Your task to perform on an android device: add a contact in the contacts app Image 0: 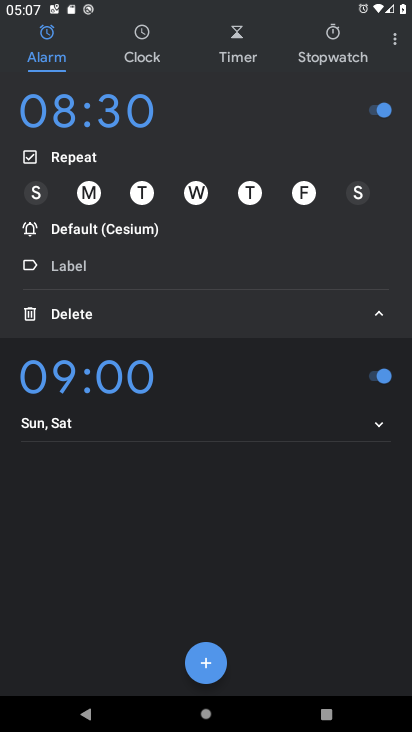
Step 0: press home button
Your task to perform on an android device: add a contact in the contacts app Image 1: 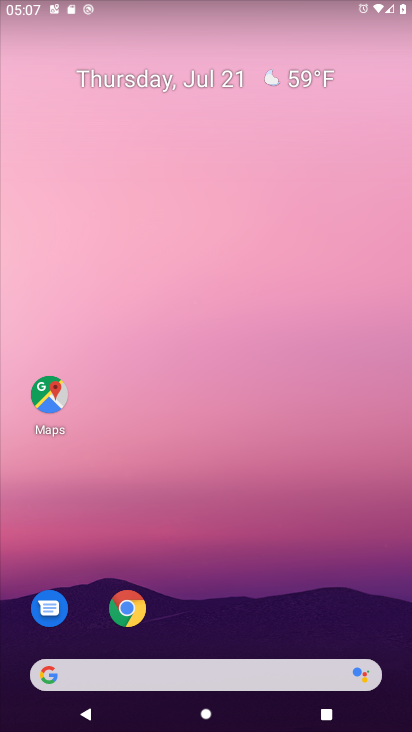
Step 1: drag from (194, 649) to (233, 0)
Your task to perform on an android device: add a contact in the contacts app Image 2: 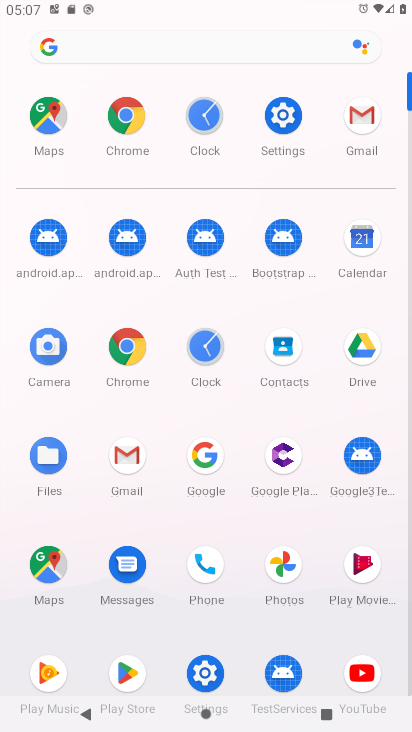
Step 2: click (288, 350)
Your task to perform on an android device: add a contact in the contacts app Image 3: 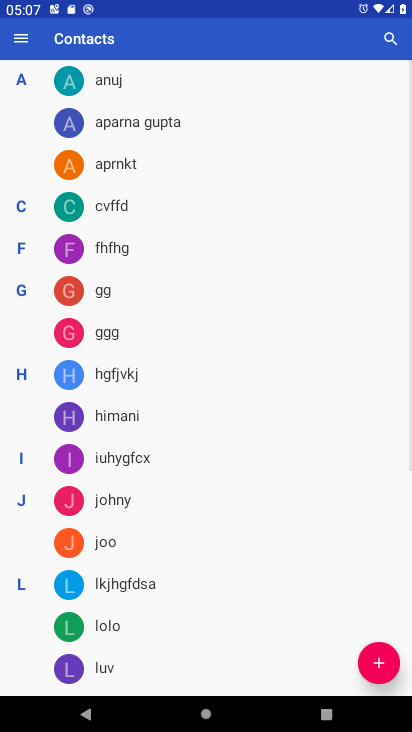
Step 3: click (384, 660)
Your task to perform on an android device: add a contact in the contacts app Image 4: 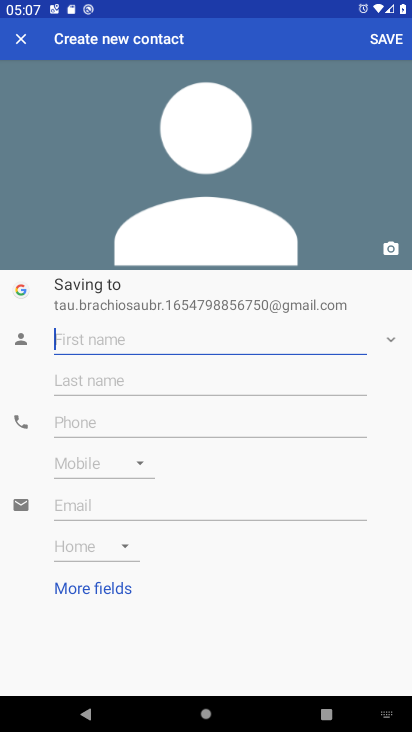
Step 4: type "kelin"
Your task to perform on an android device: add a contact in the contacts app Image 5: 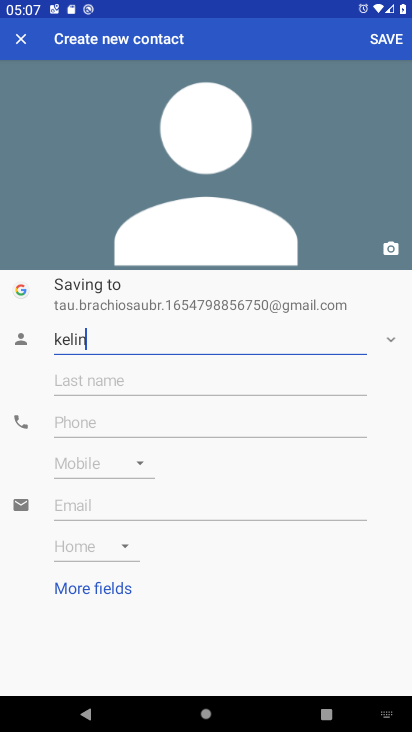
Step 5: click (102, 416)
Your task to perform on an android device: add a contact in the contacts app Image 6: 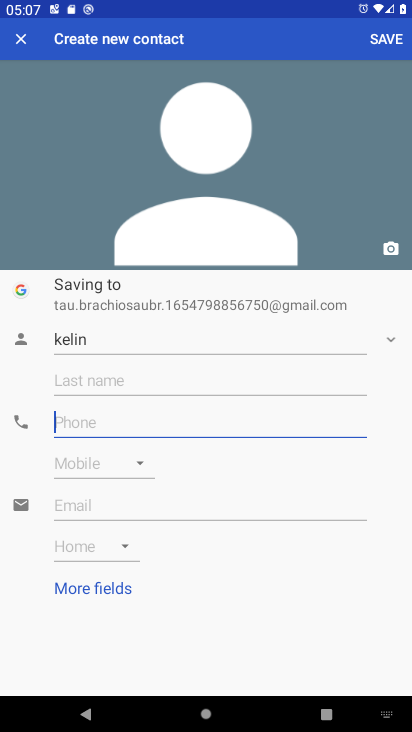
Step 6: type "9087656787"
Your task to perform on an android device: add a contact in the contacts app Image 7: 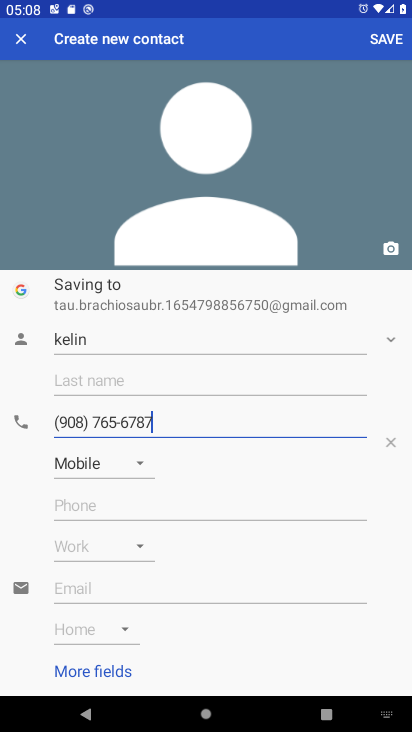
Step 7: click (400, 35)
Your task to perform on an android device: add a contact in the contacts app Image 8: 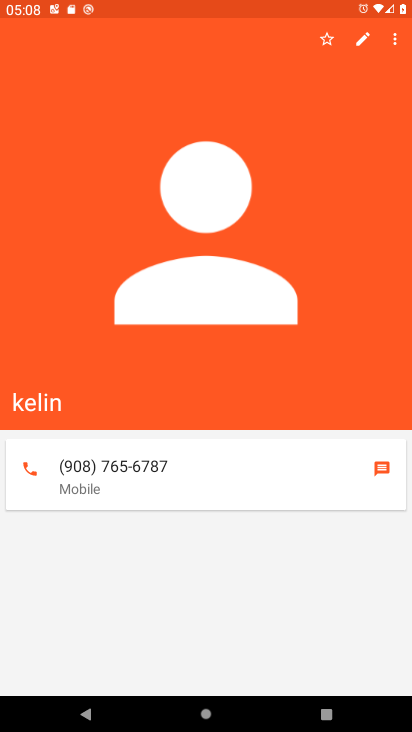
Step 8: task complete